Your task to perform on an android device: see tabs open on other devices in the chrome app Image 0: 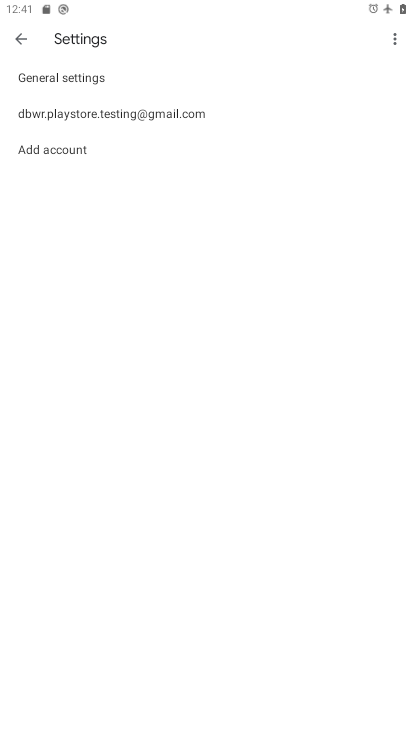
Step 0: press home button
Your task to perform on an android device: see tabs open on other devices in the chrome app Image 1: 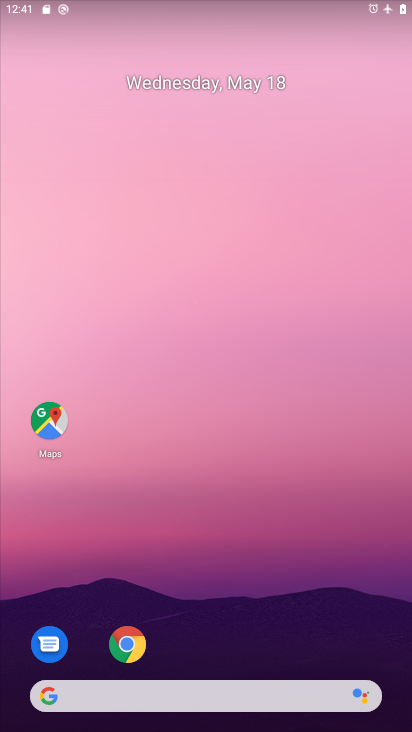
Step 1: drag from (236, 660) to (264, 152)
Your task to perform on an android device: see tabs open on other devices in the chrome app Image 2: 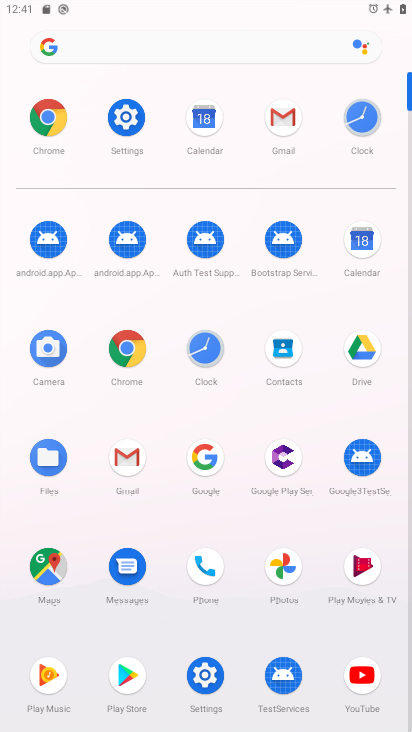
Step 2: click (126, 347)
Your task to perform on an android device: see tabs open on other devices in the chrome app Image 3: 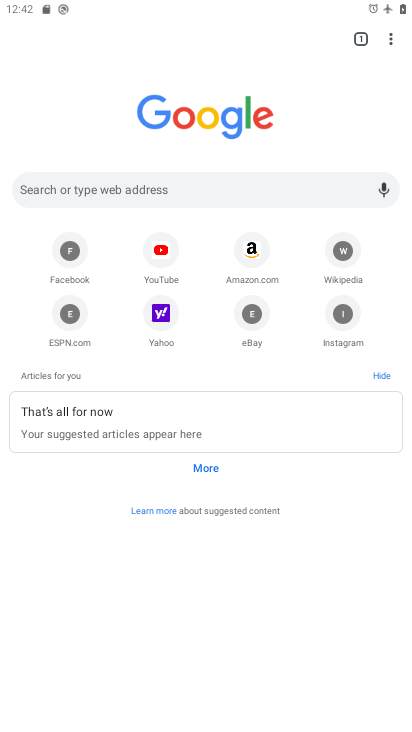
Step 3: click (393, 33)
Your task to perform on an android device: see tabs open on other devices in the chrome app Image 4: 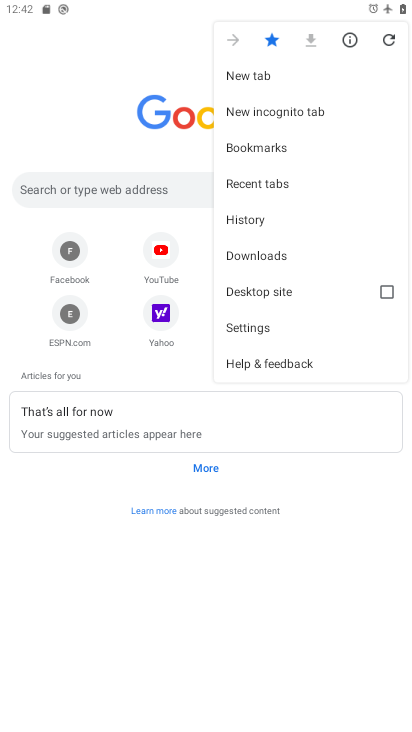
Step 4: click (295, 178)
Your task to perform on an android device: see tabs open on other devices in the chrome app Image 5: 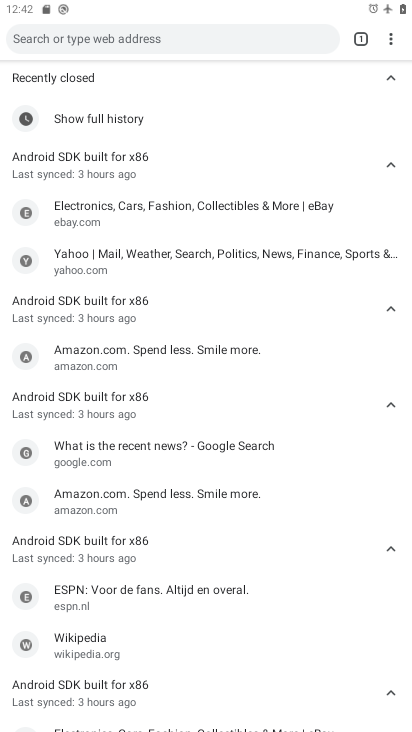
Step 5: task complete